Your task to perform on an android device: clear history in the chrome app Image 0: 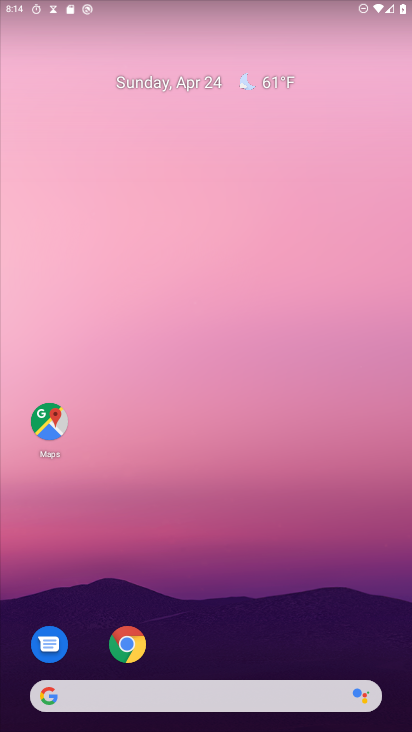
Step 0: click (130, 648)
Your task to perform on an android device: clear history in the chrome app Image 1: 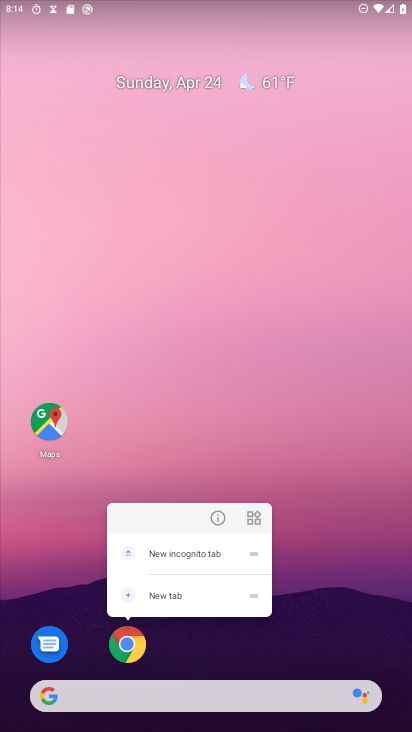
Step 1: click (121, 646)
Your task to perform on an android device: clear history in the chrome app Image 2: 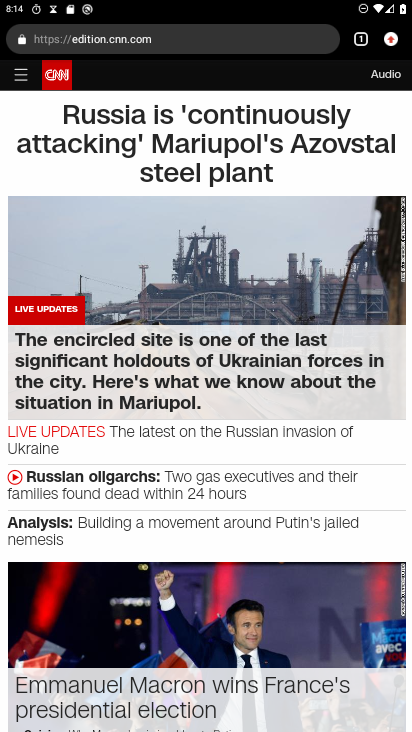
Step 2: drag from (387, 41) to (257, 268)
Your task to perform on an android device: clear history in the chrome app Image 3: 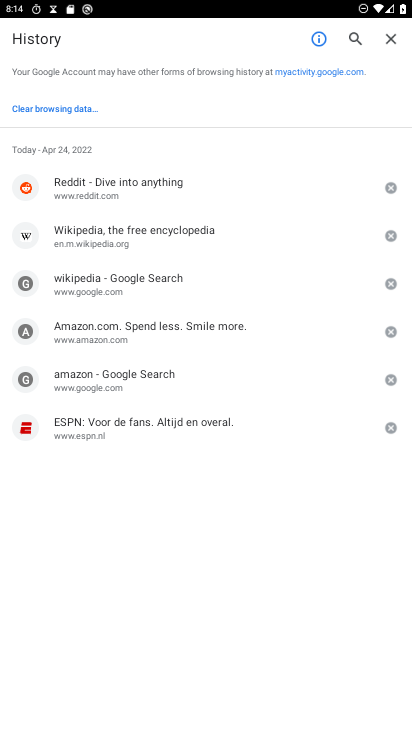
Step 3: click (78, 104)
Your task to perform on an android device: clear history in the chrome app Image 4: 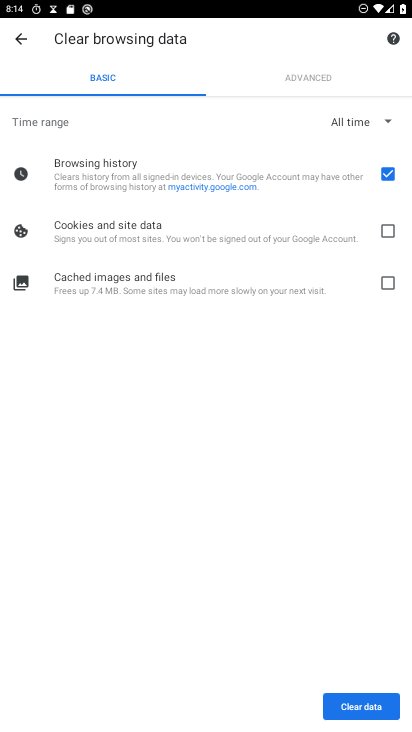
Step 4: click (380, 707)
Your task to perform on an android device: clear history in the chrome app Image 5: 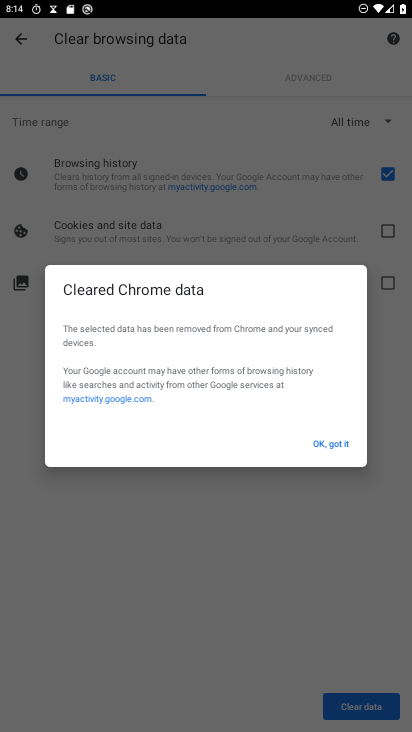
Step 5: click (327, 443)
Your task to perform on an android device: clear history in the chrome app Image 6: 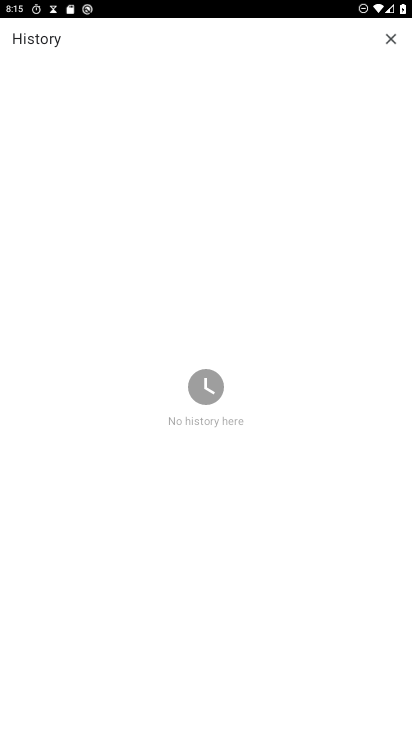
Step 6: task complete